Your task to perform on an android device: Search for a 24-inch cordless drill. Image 0: 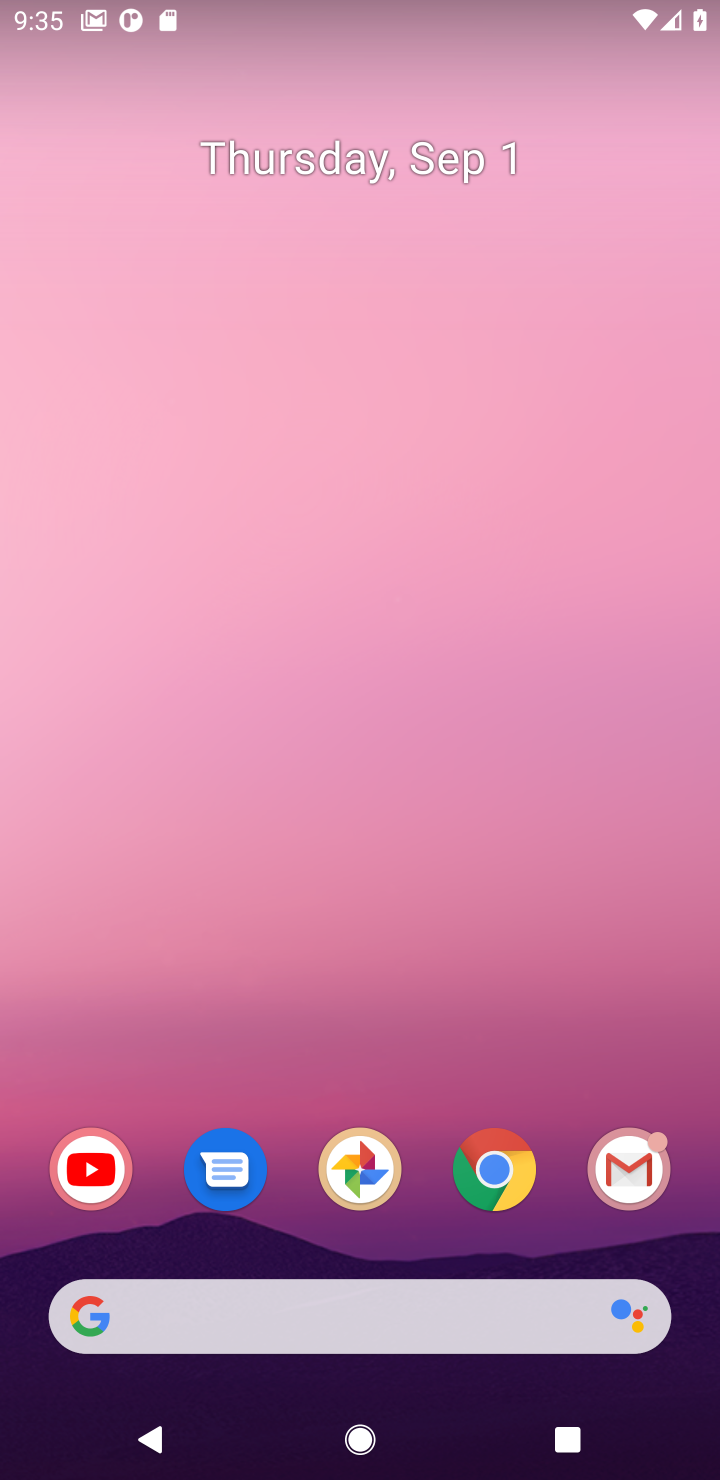
Step 0: drag from (412, 1076) to (369, 41)
Your task to perform on an android device: Search for a 24-inch cordless drill. Image 1: 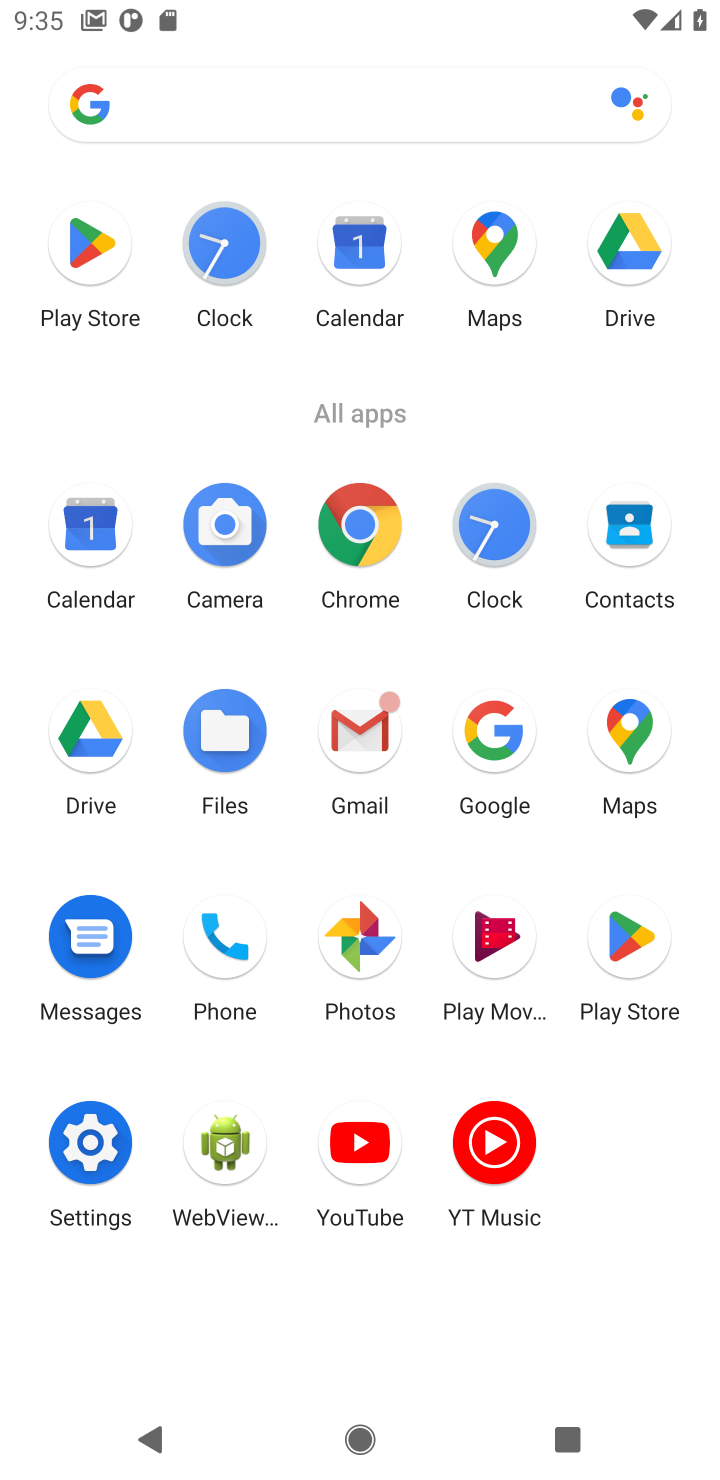
Step 1: click (352, 517)
Your task to perform on an android device: Search for a 24-inch cordless drill. Image 2: 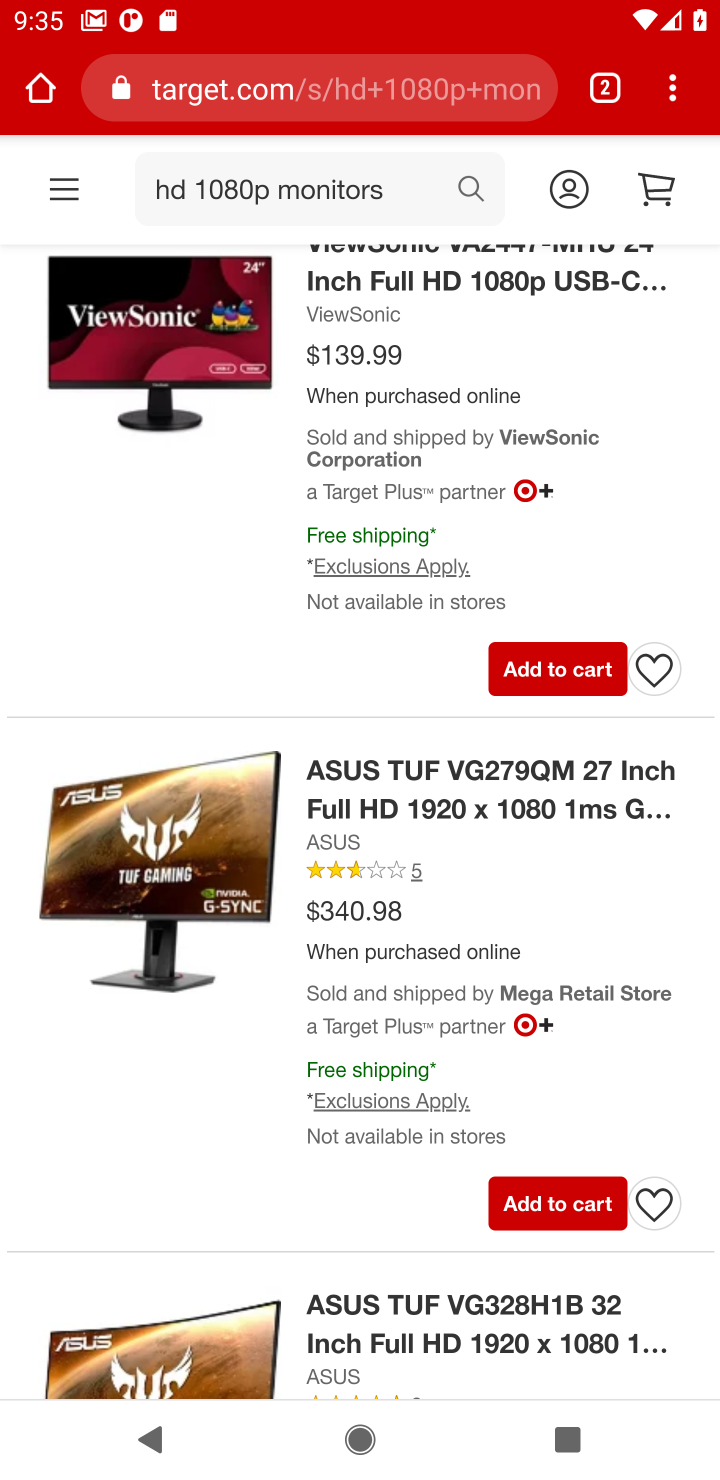
Step 2: click (265, 77)
Your task to perform on an android device: Search for a 24-inch cordless drill. Image 3: 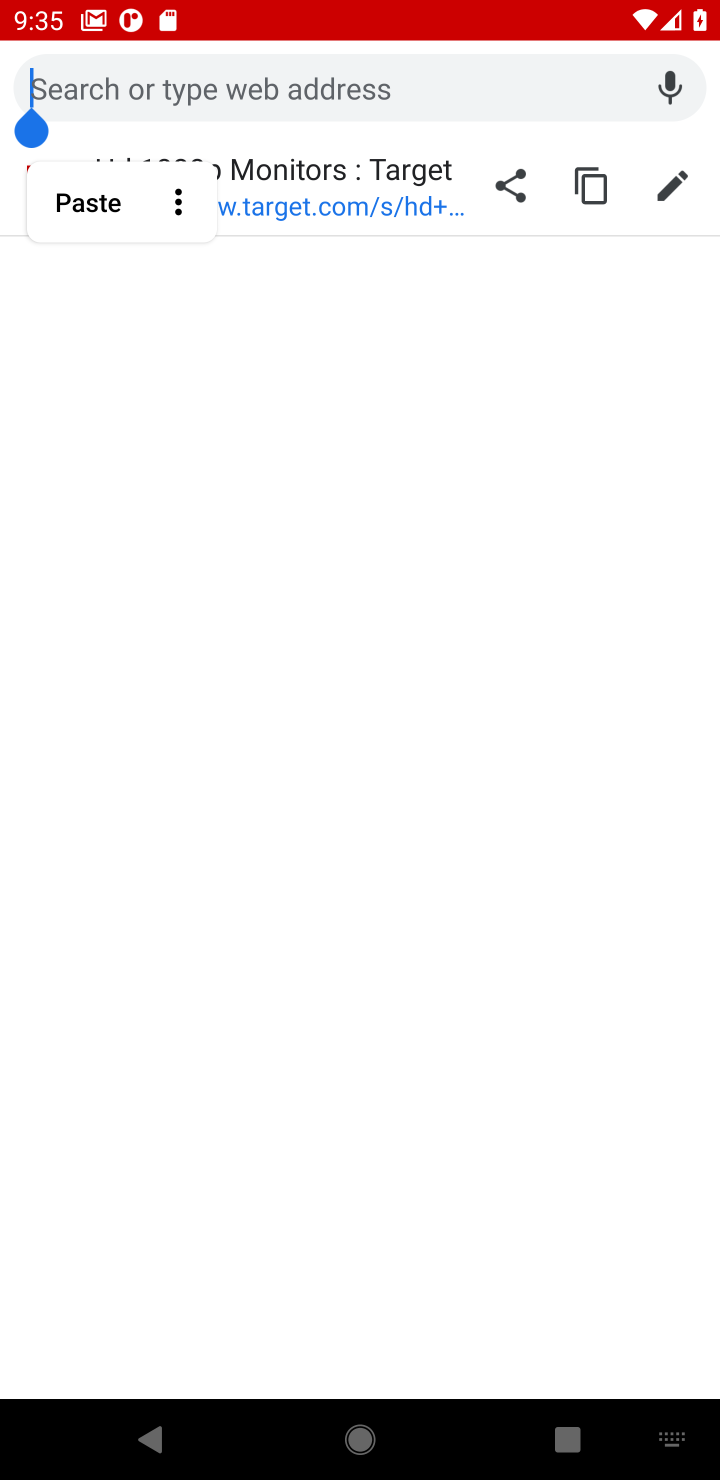
Step 3: type "a 24-inch cordless drill"
Your task to perform on an android device: Search for a 24-inch cordless drill. Image 4: 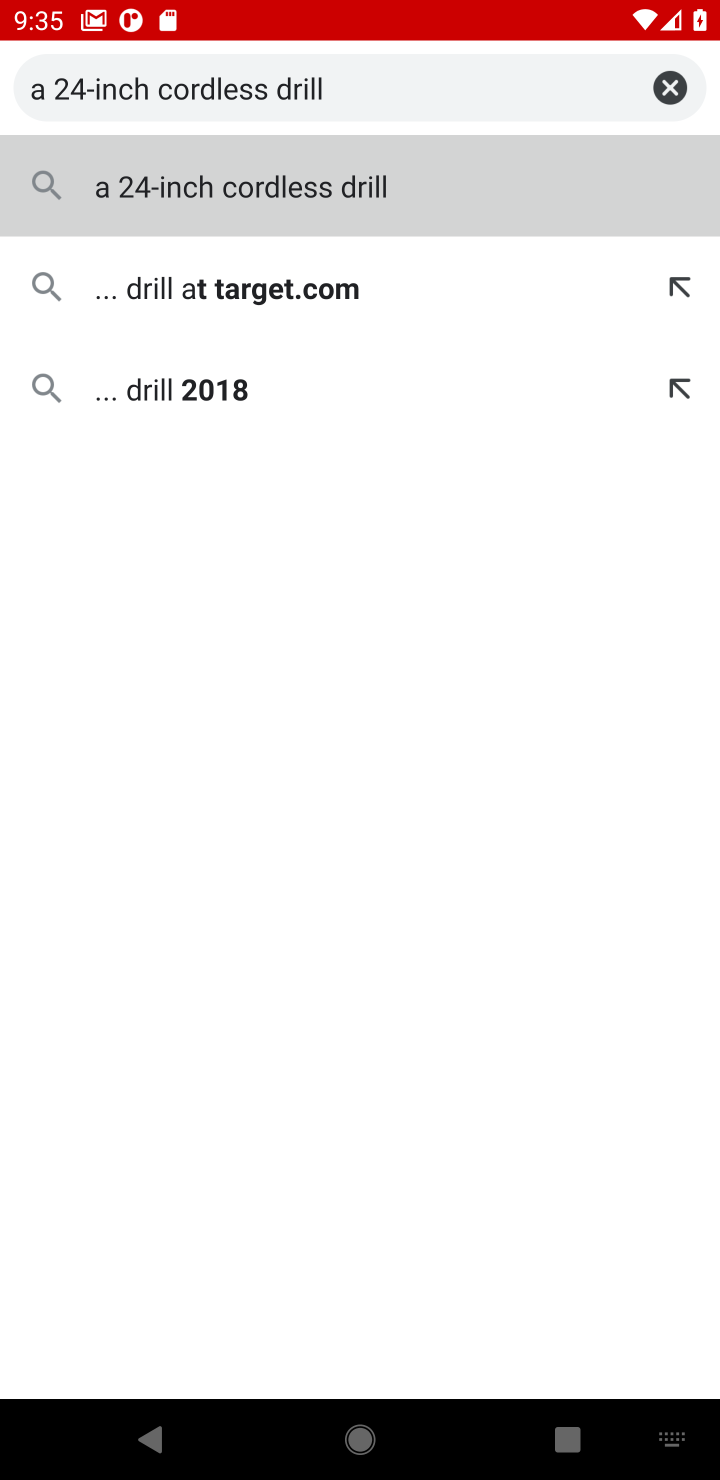
Step 4: click (249, 195)
Your task to perform on an android device: Search for a 24-inch cordless drill. Image 5: 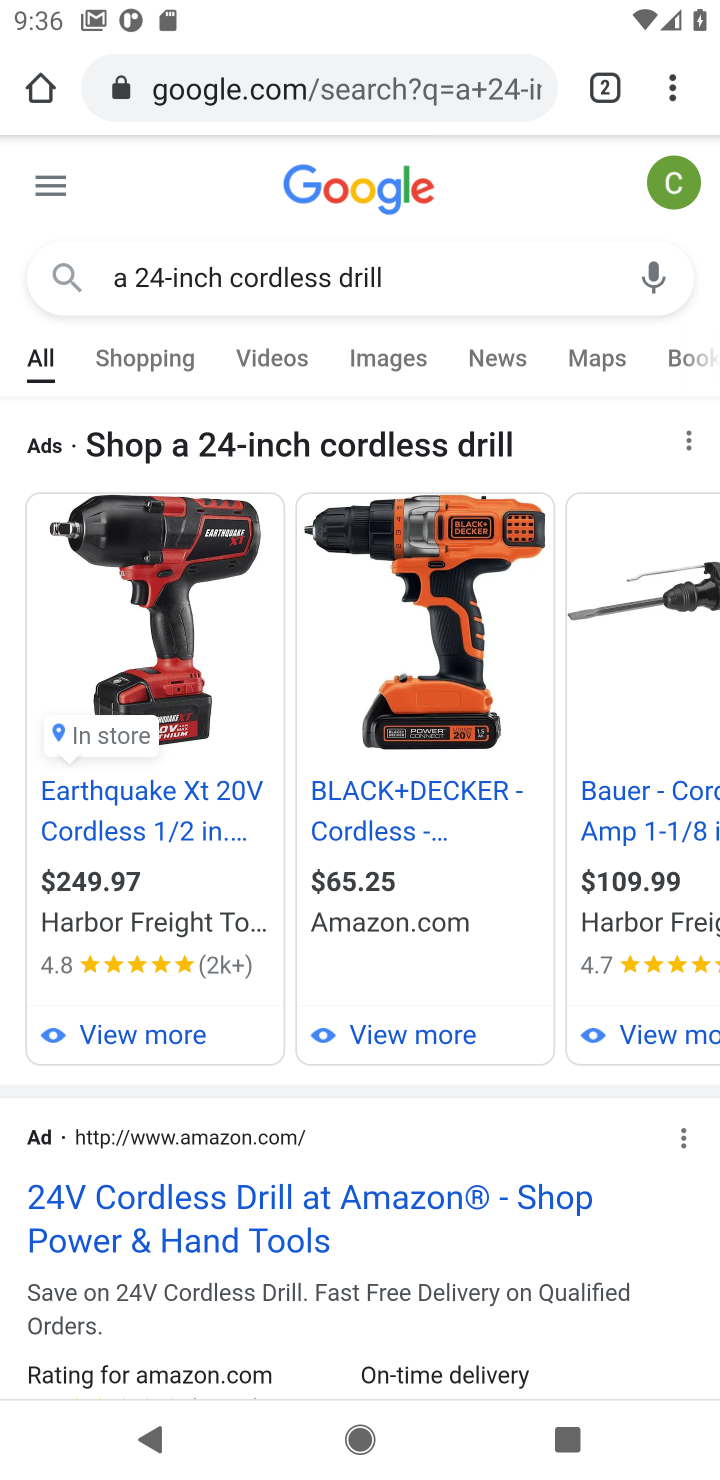
Step 5: drag from (345, 1165) to (363, 647)
Your task to perform on an android device: Search for a 24-inch cordless drill. Image 6: 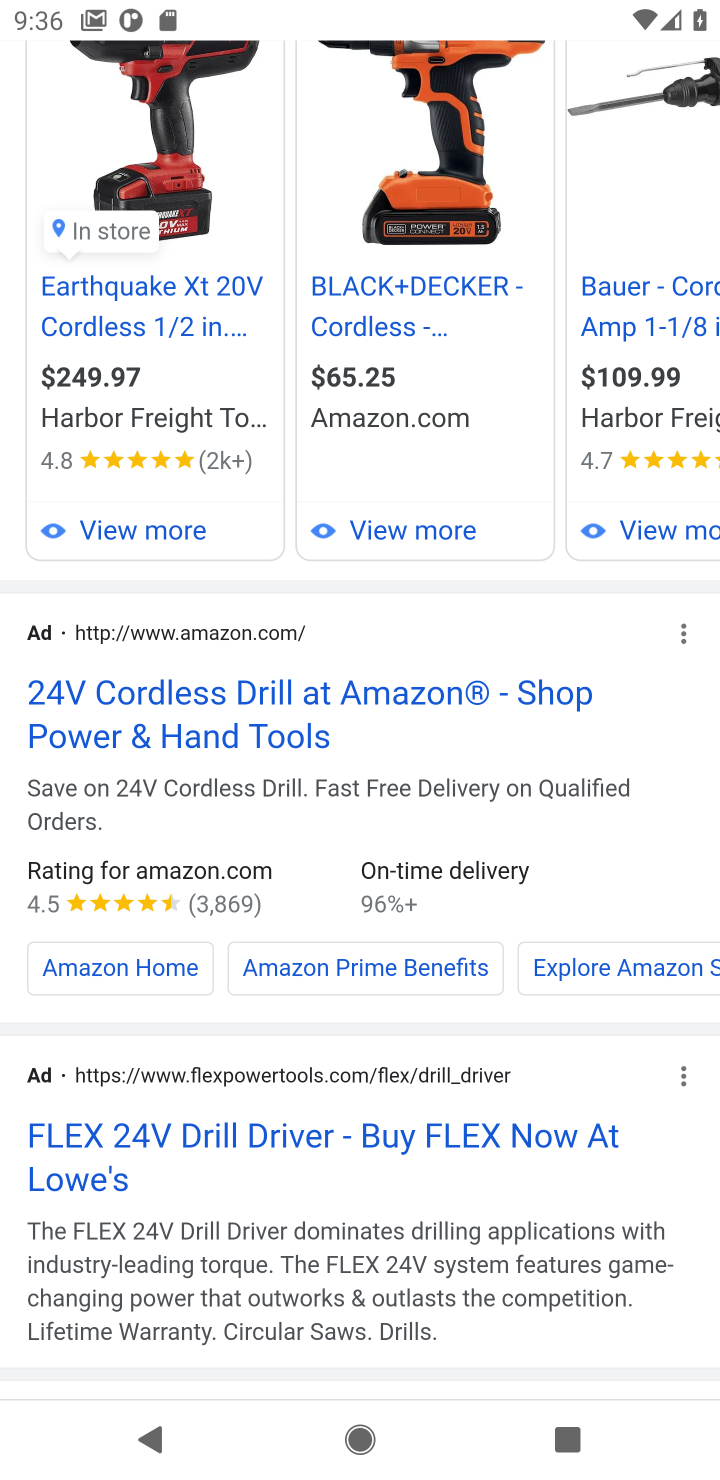
Step 6: drag from (346, 1291) to (368, 542)
Your task to perform on an android device: Search for a 24-inch cordless drill. Image 7: 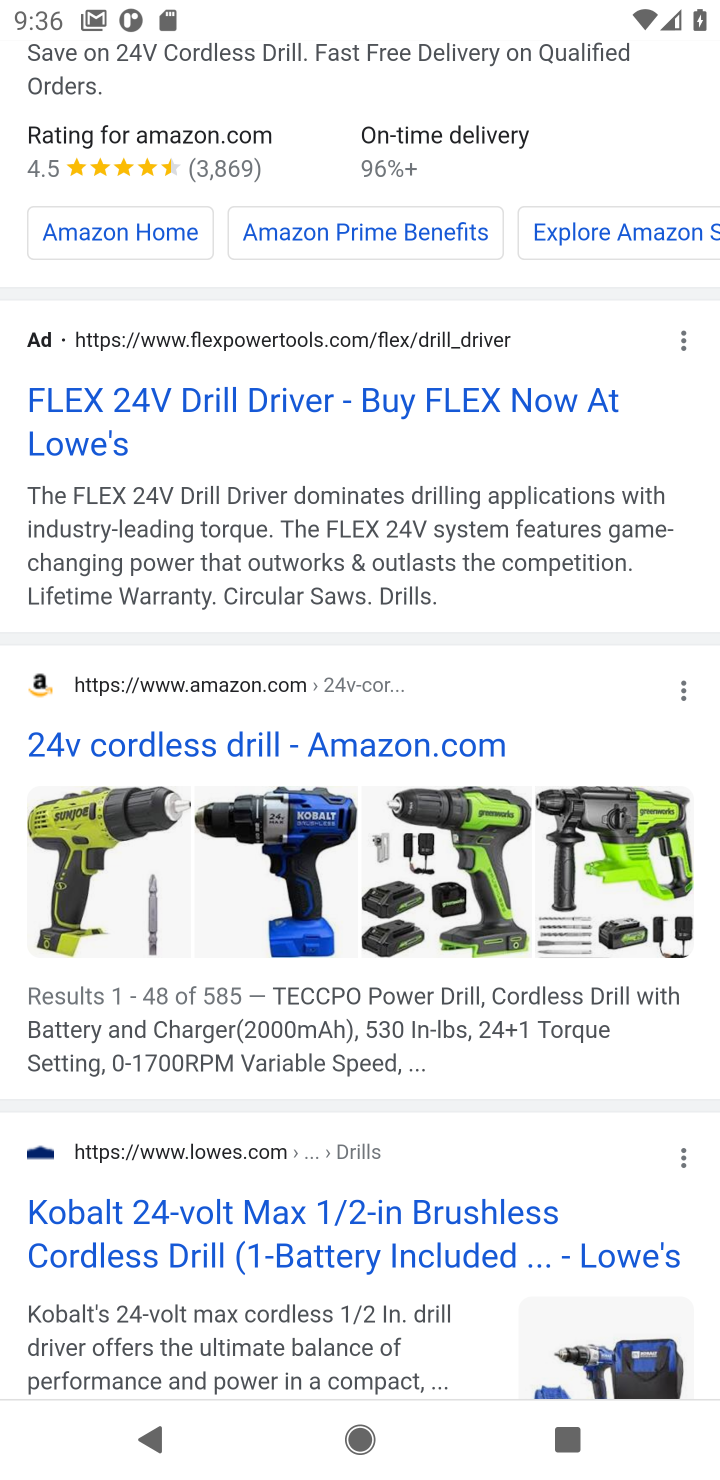
Step 7: click (227, 746)
Your task to perform on an android device: Search for a 24-inch cordless drill. Image 8: 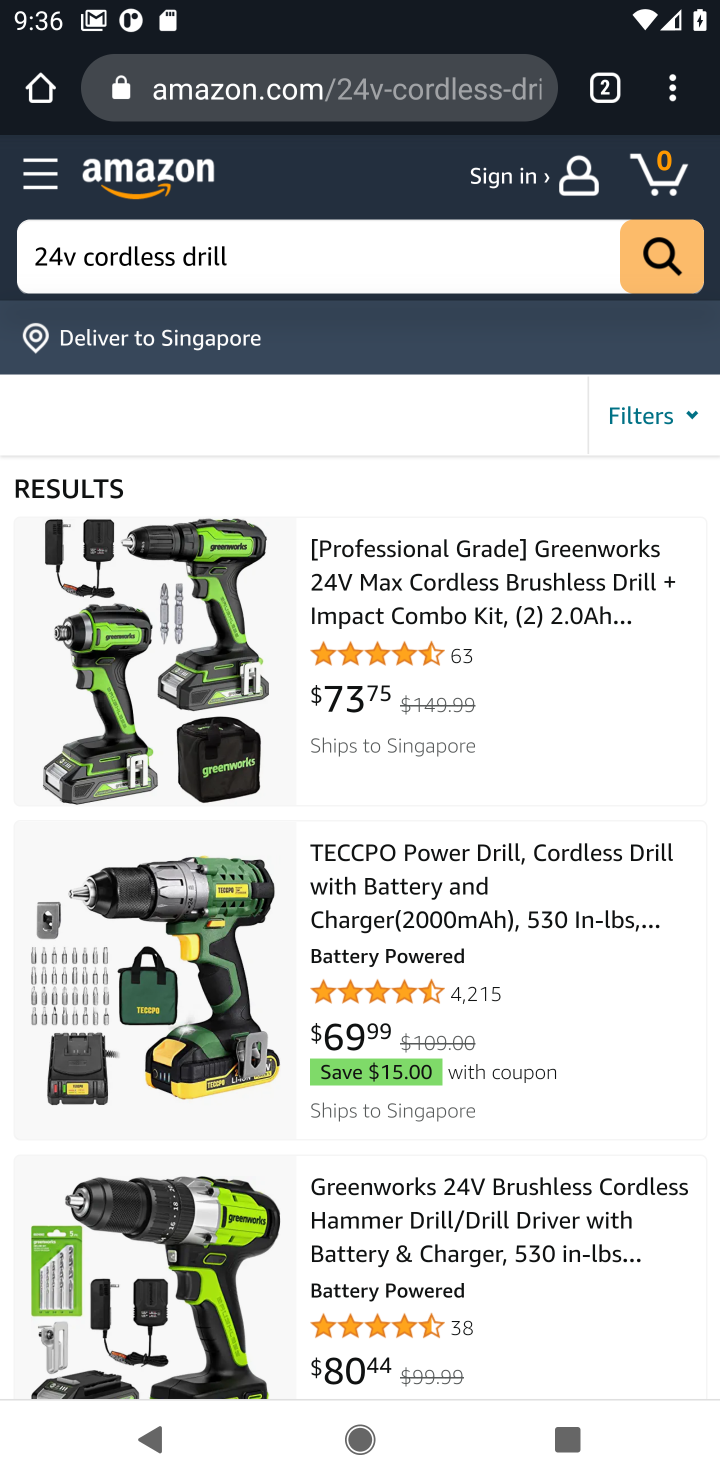
Step 8: drag from (291, 1146) to (369, 371)
Your task to perform on an android device: Search for a 24-inch cordless drill. Image 9: 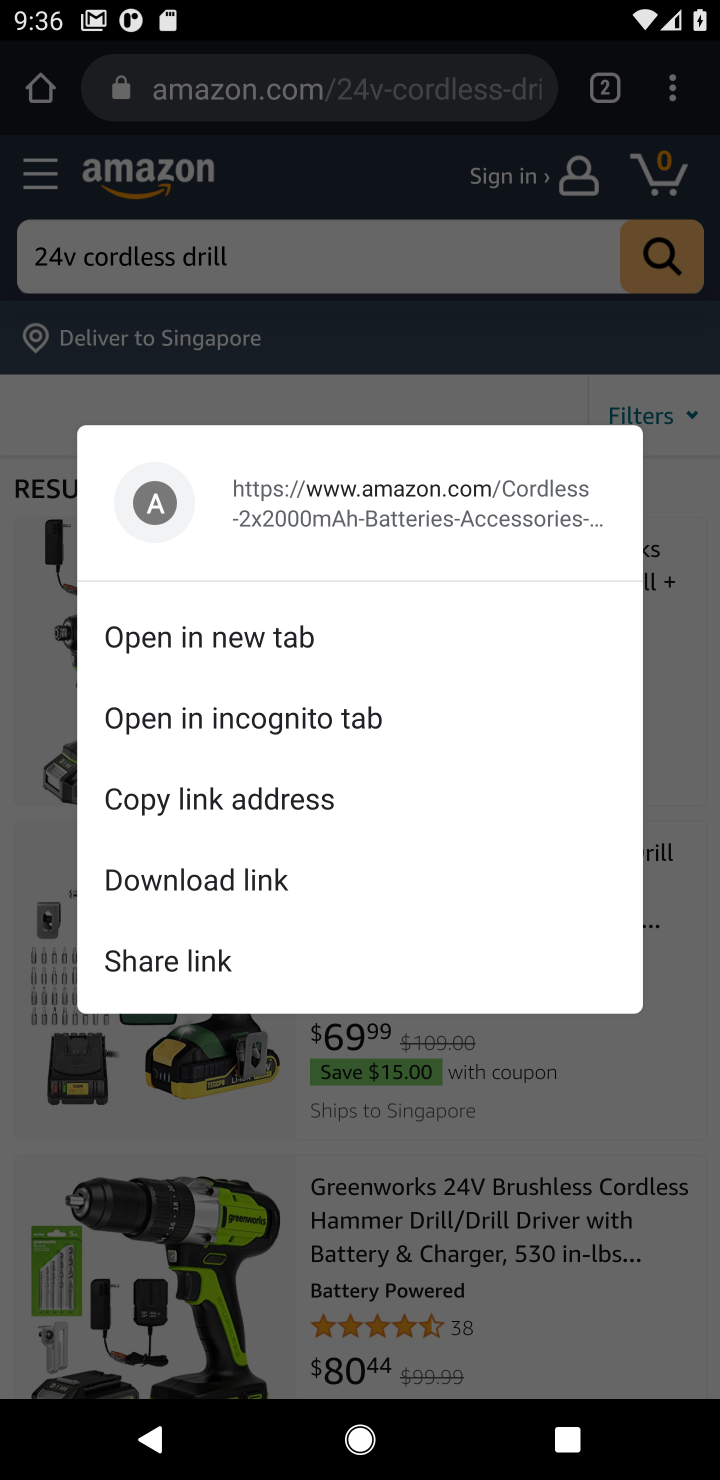
Step 9: click (390, 1176)
Your task to perform on an android device: Search for a 24-inch cordless drill. Image 10: 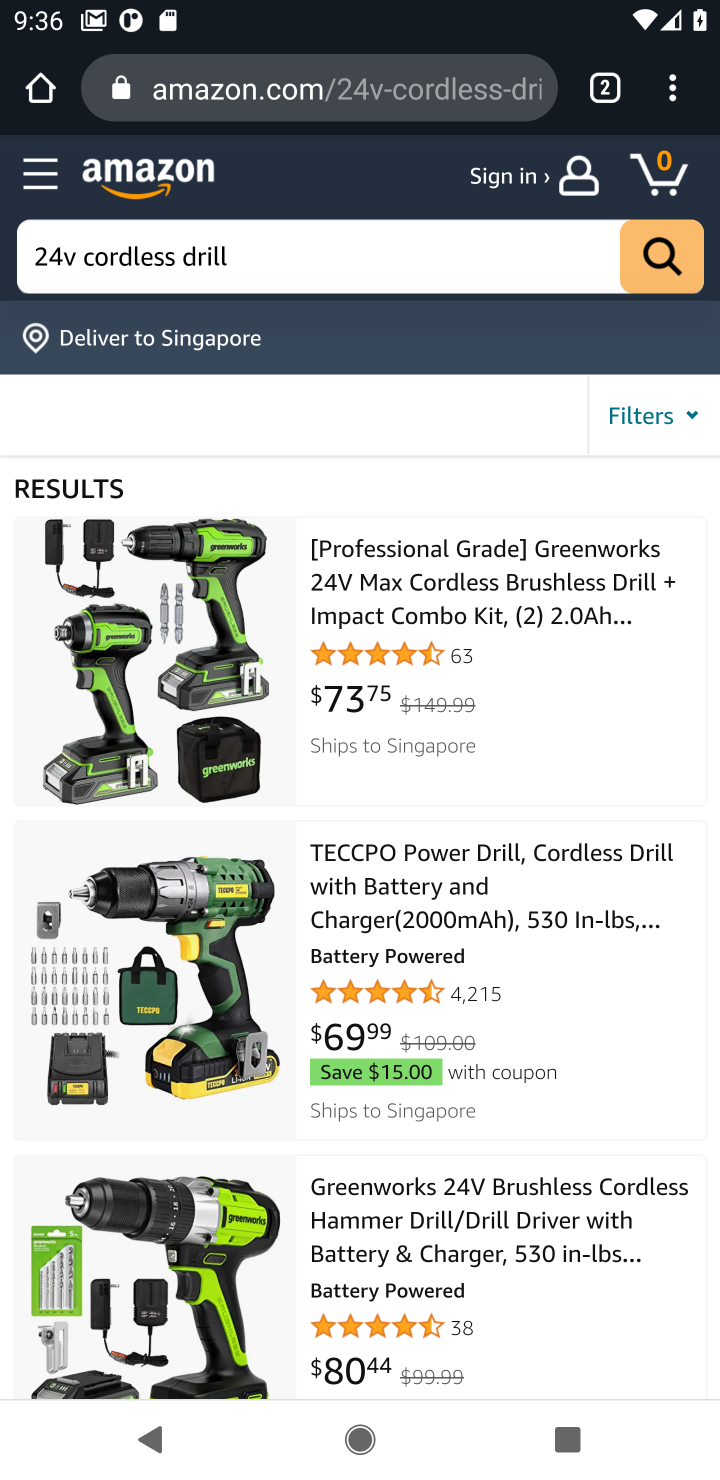
Step 10: task complete